Your task to perform on an android device: check android version Image 0: 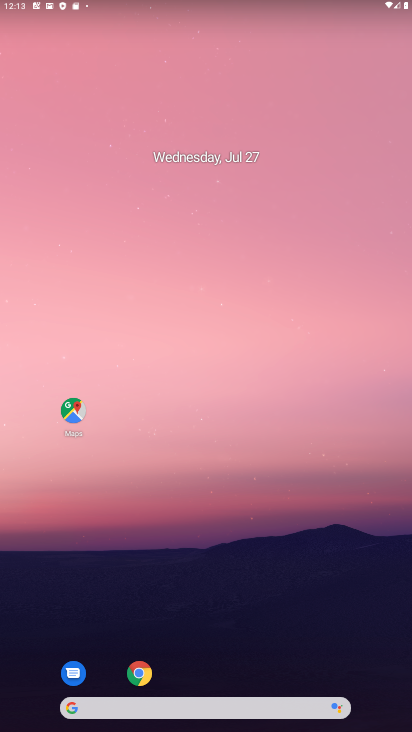
Step 0: drag from (263, 640) to (261, 126)
Your task to perform on an android device: check android version Image 1: 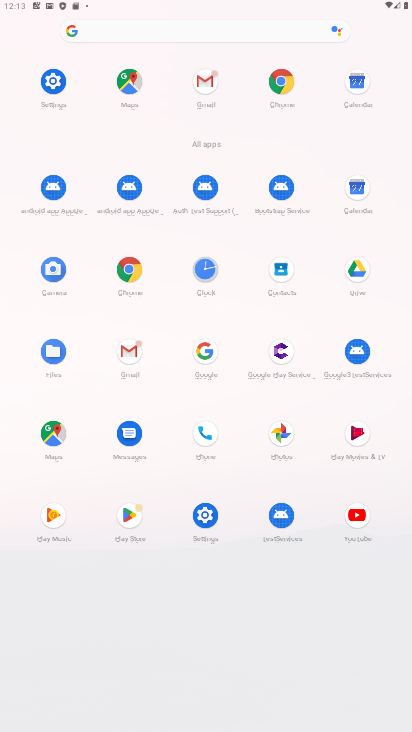
Step 1: click (40, 73)
Your task to perform on an android device: check android version Image 2: 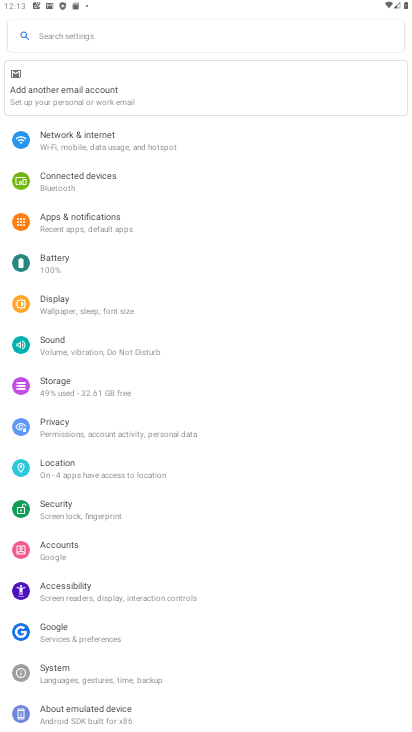
Step 2: click (92, 713)
Your task to perform on an android device: check android version Image 3: 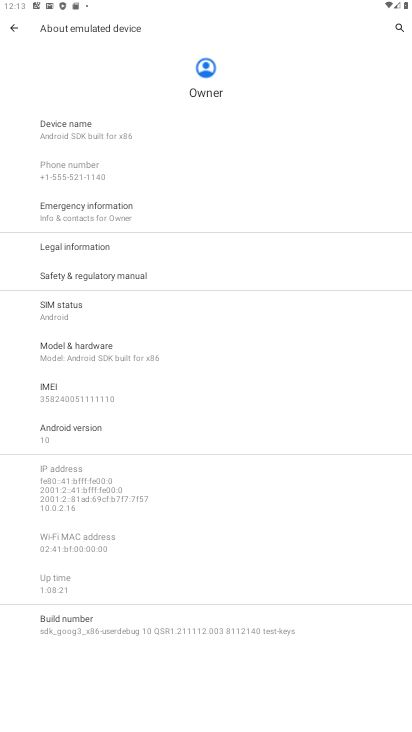
Step 3: click (82, 423)
Your task to perform on an android device: check android version Image 4: 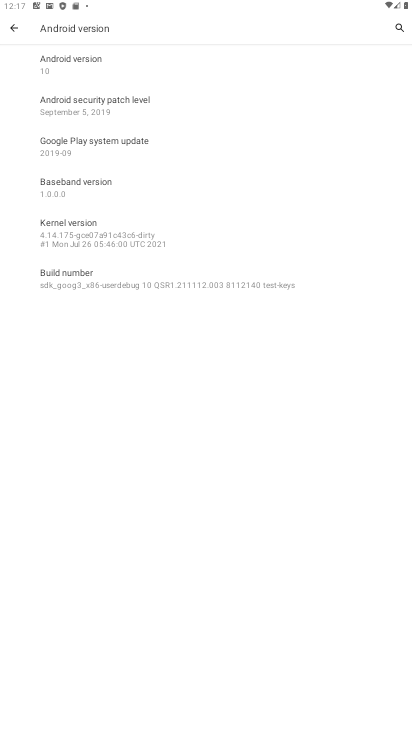
Step 4: task complete